Your task to perform on an android device: turn off picture-in-picture Image 0: 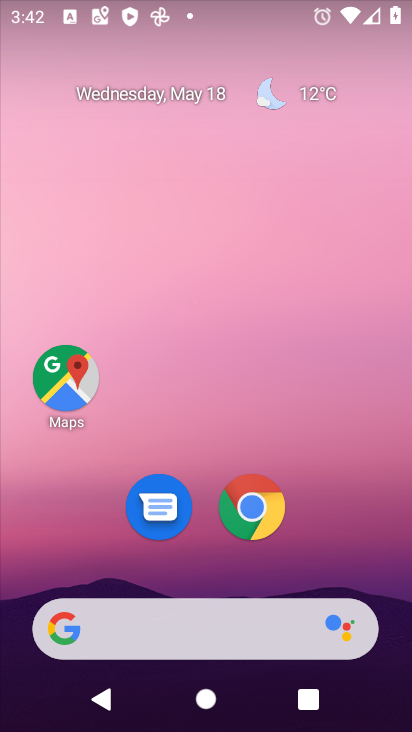
Step 0: drag from (388, 605) to (298, 114)
Your task to perform on an android device: turn off picture-in-picture Image 1: 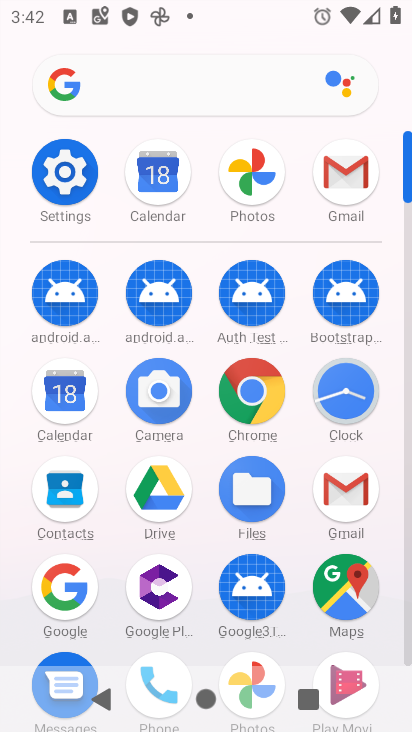
Step 1: click (406, 648)
Your task to perform on an android device: turn off picture-in-picture Image 2: 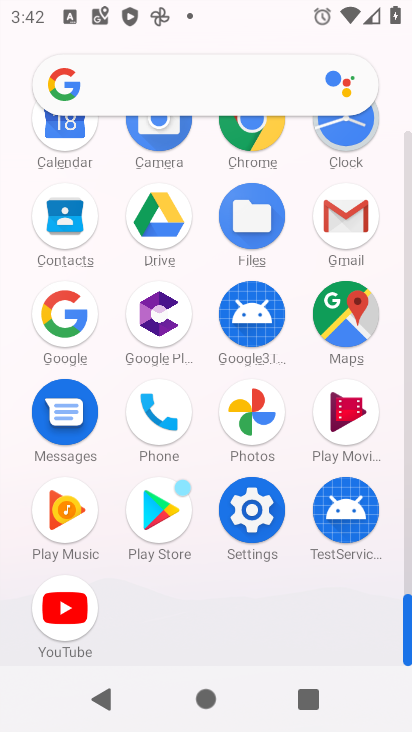
Step 2: click (248, 509)
Your task to perform on an android device: turn off picture-in-picture Image 3: 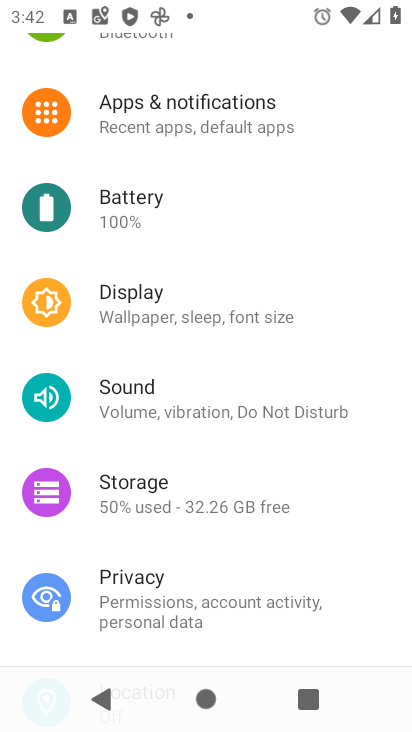
Step 3: click (171, 110)
Your task to perform on an android device: turn off picture-in-picture Image 4: 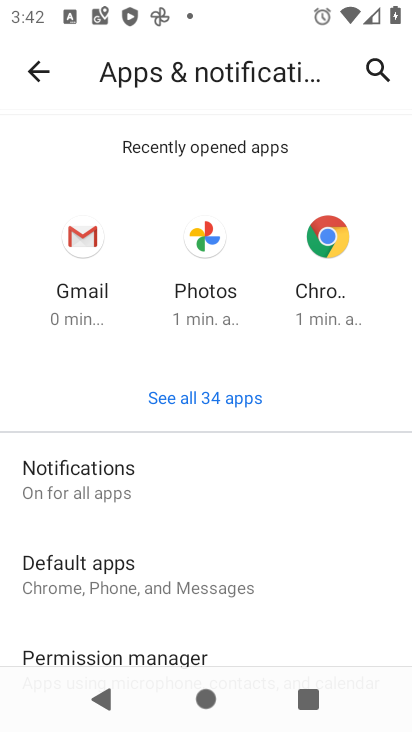
Step 4: drag from (260, 629) to (303, 210)
Your task to perform on an android device: turn off picture-in-picture Image 5: 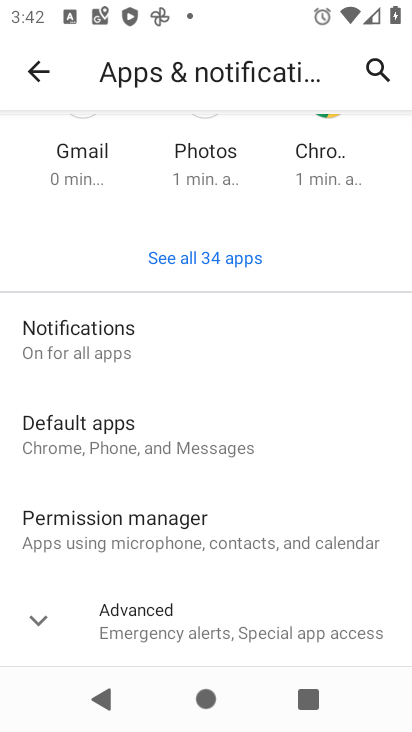
Step 5: click (33, 623)
Your task to perform on an android device: turn off picture-in-picture Image 6: 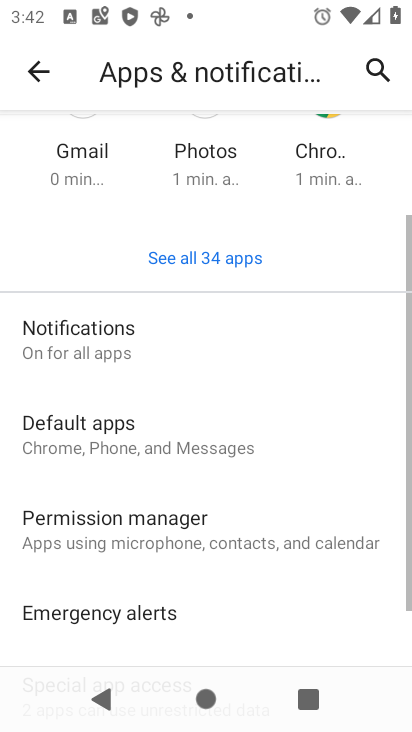
Step 6: drag from (324, 609) to (306, 156)
Your task to perform on an android device: turn off picture-in-picture Image 7: 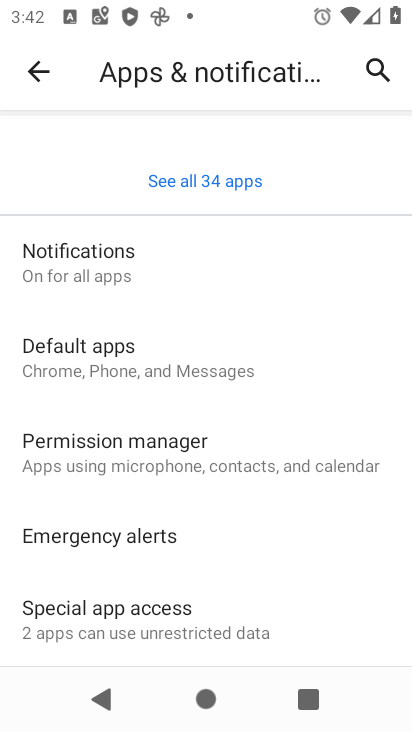
Step 7: click (73, 613)
Your task to perform on an android device: turn off picture-in-picture Image 8: 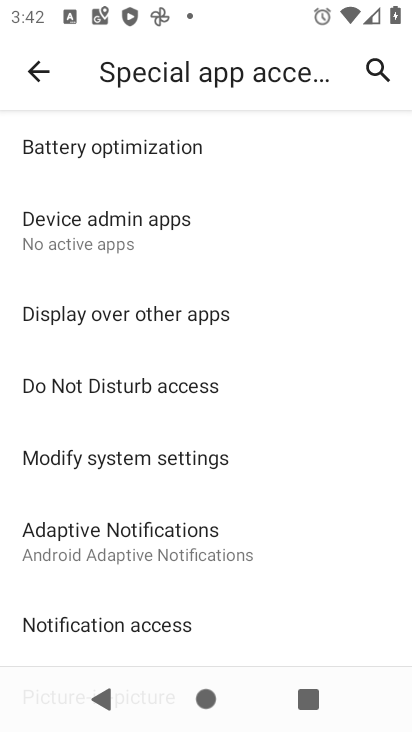
Step 8: drag from (318, 588) to (279, 145)
Your task to perform on an android device: turn off picture-in-picture Image 9: 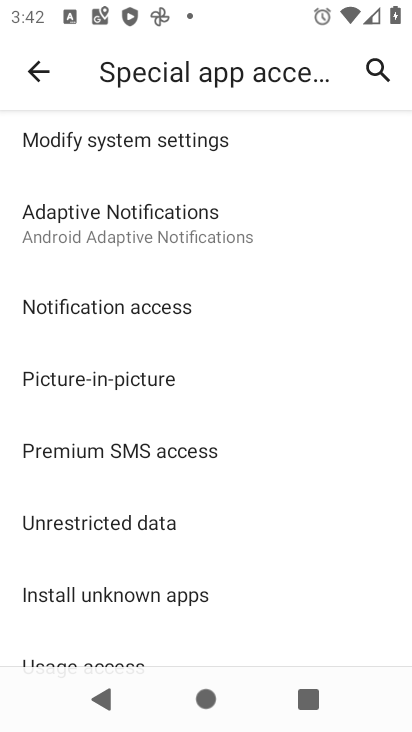
Step 9: click (57, 381)
Your task to perform on an android device: turn off picture-in-picture Image 10: 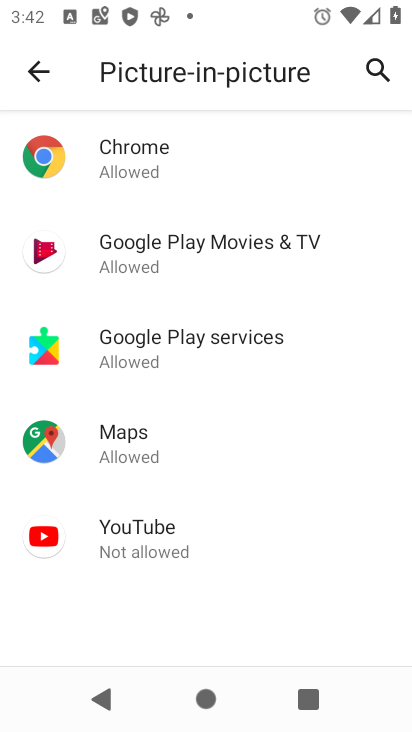
Step 10: click (113, 455)
Your task to perform on an android device: turn off picture-in-picture Image 11: 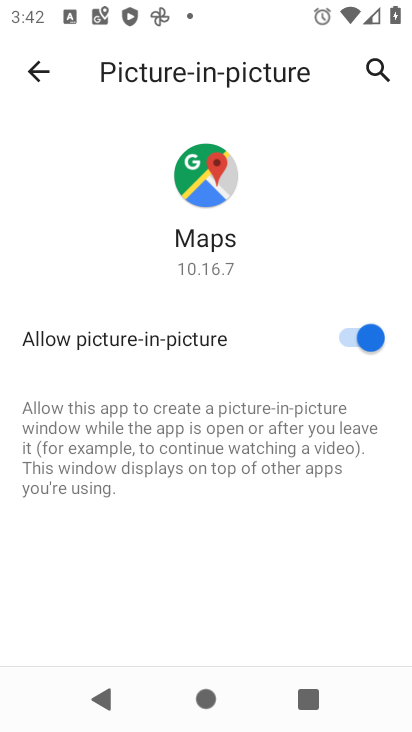
Step 11: click (349, 333)
Your task to perform on an android device: turn off picture-in-picture Image 12: 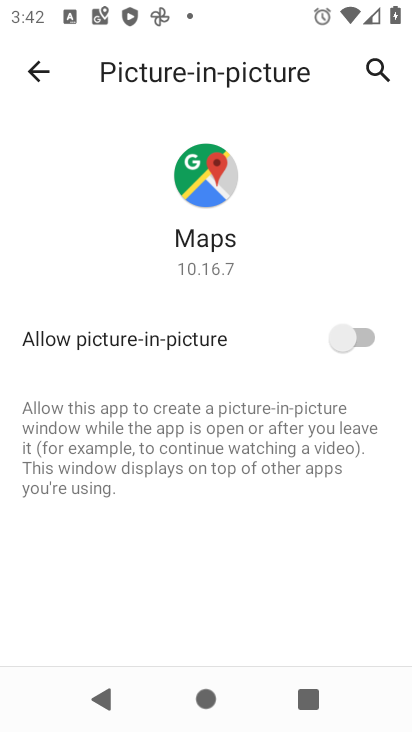
Step 12: task complete